Your task to perform on an android device: turn on location history Image 0: 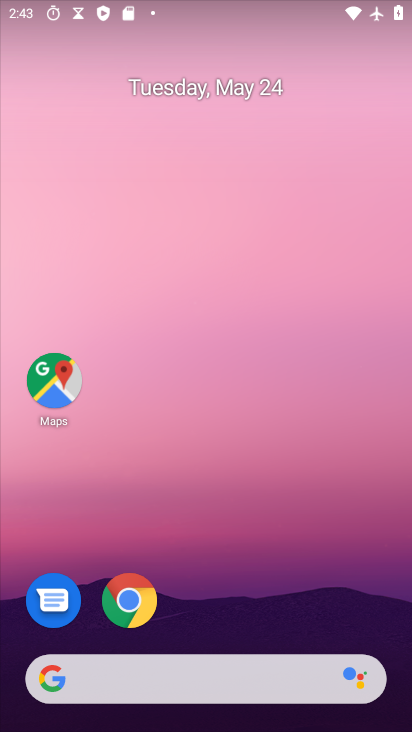
Step 0: drag from (303, 492) to (226, 23)
Your task to perform on an android device: turn on location history Image 1: 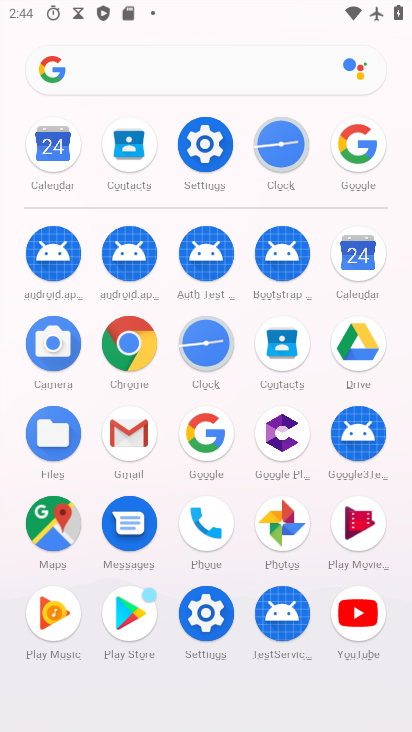
Step 1: click (209, 169)
Your task to perform on an android device: turn on location history Image 2: 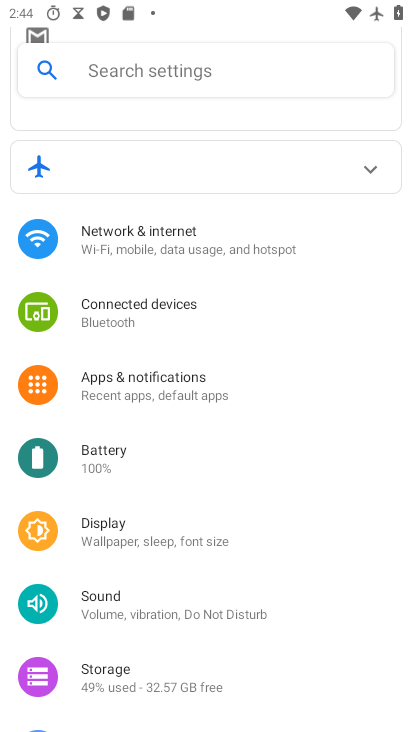
Step 2: drag from (225, 627) to (247, 269)
Your task to perform on an android device: turn on location history Image 3: 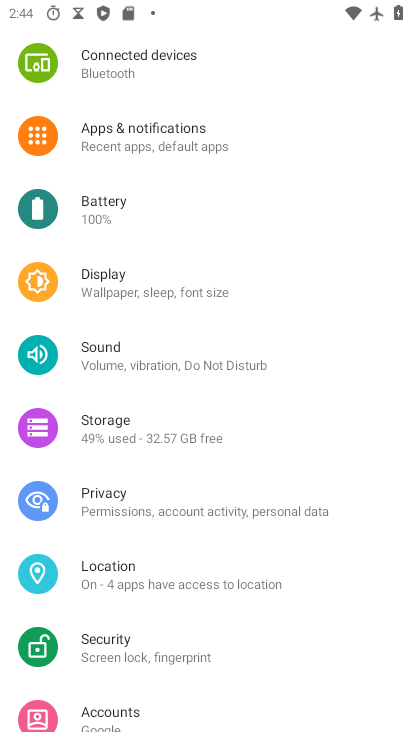
Step 3: click (184, 567)
Your task to perform on an android device: turn on location history Image 4: 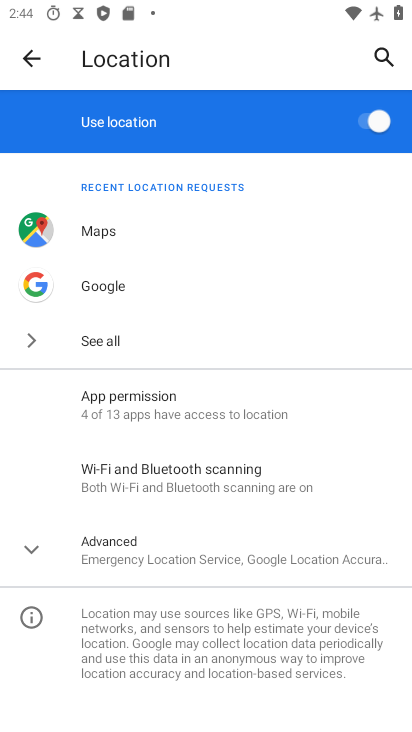
Step 4: click (214, 540)
Your task to perform on an android device: turn on location history Image 5: 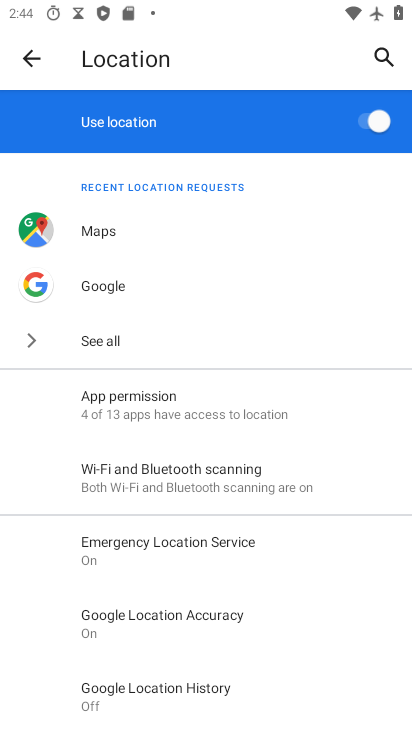
Step 5: click (221, 692)
Your task to perform on an android device: turn on location history Image 6: 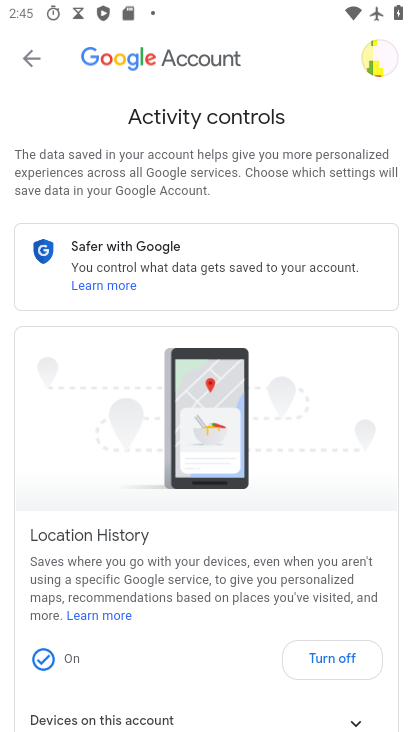
Step 6: task complete